Your task to perform on an android device: Go to Google maps Image 0: 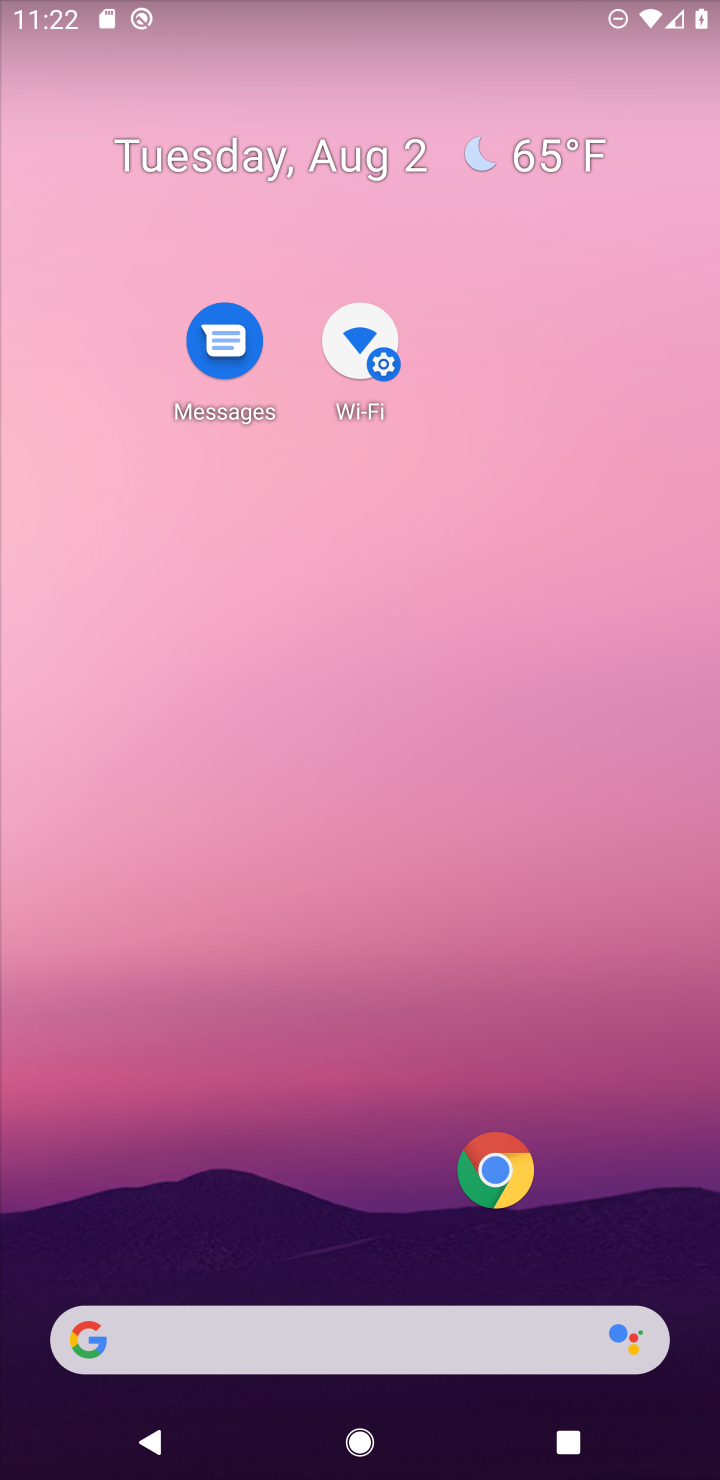
Step 0: click (486, 219)
Your task to perform on an android device: Go to Google maps Image 1: 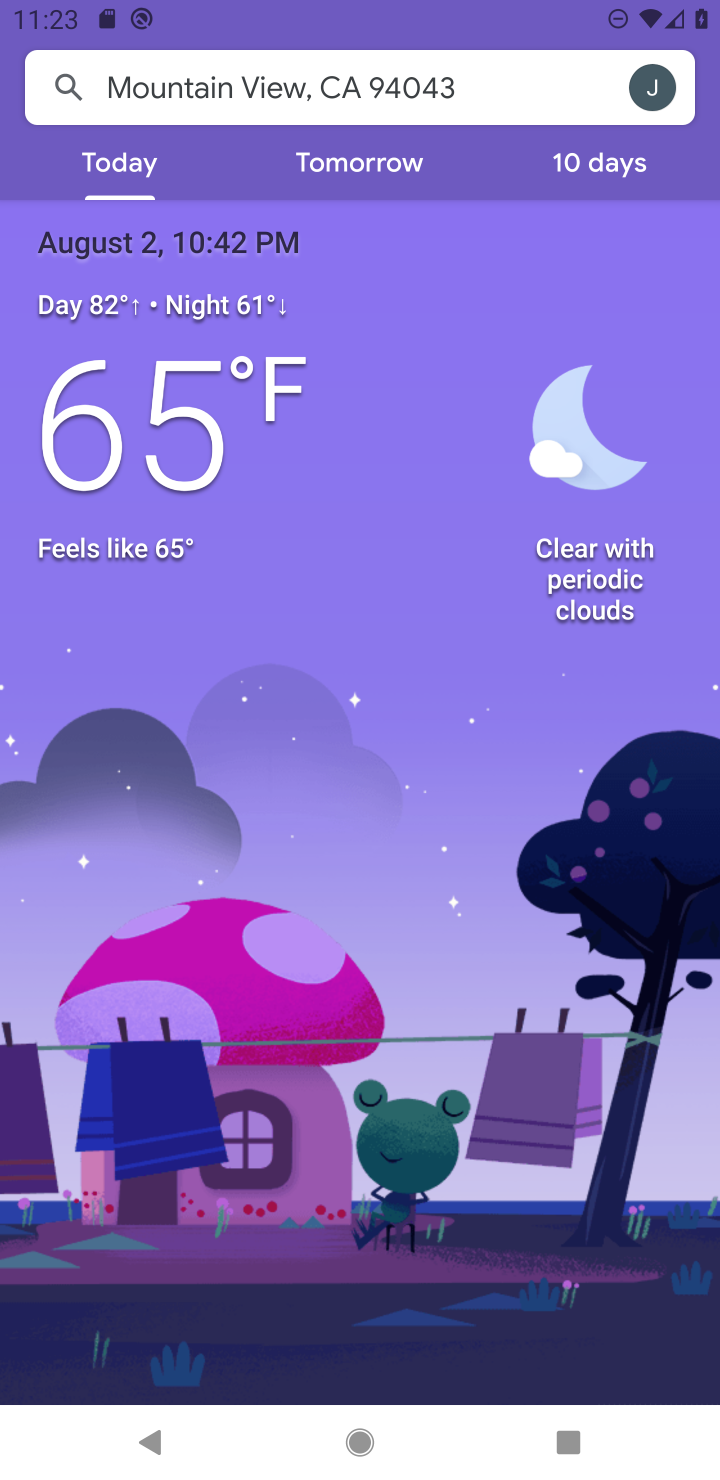
Step 1: press home button
Your task to perform on an android device: Go to Google maps Image 2: 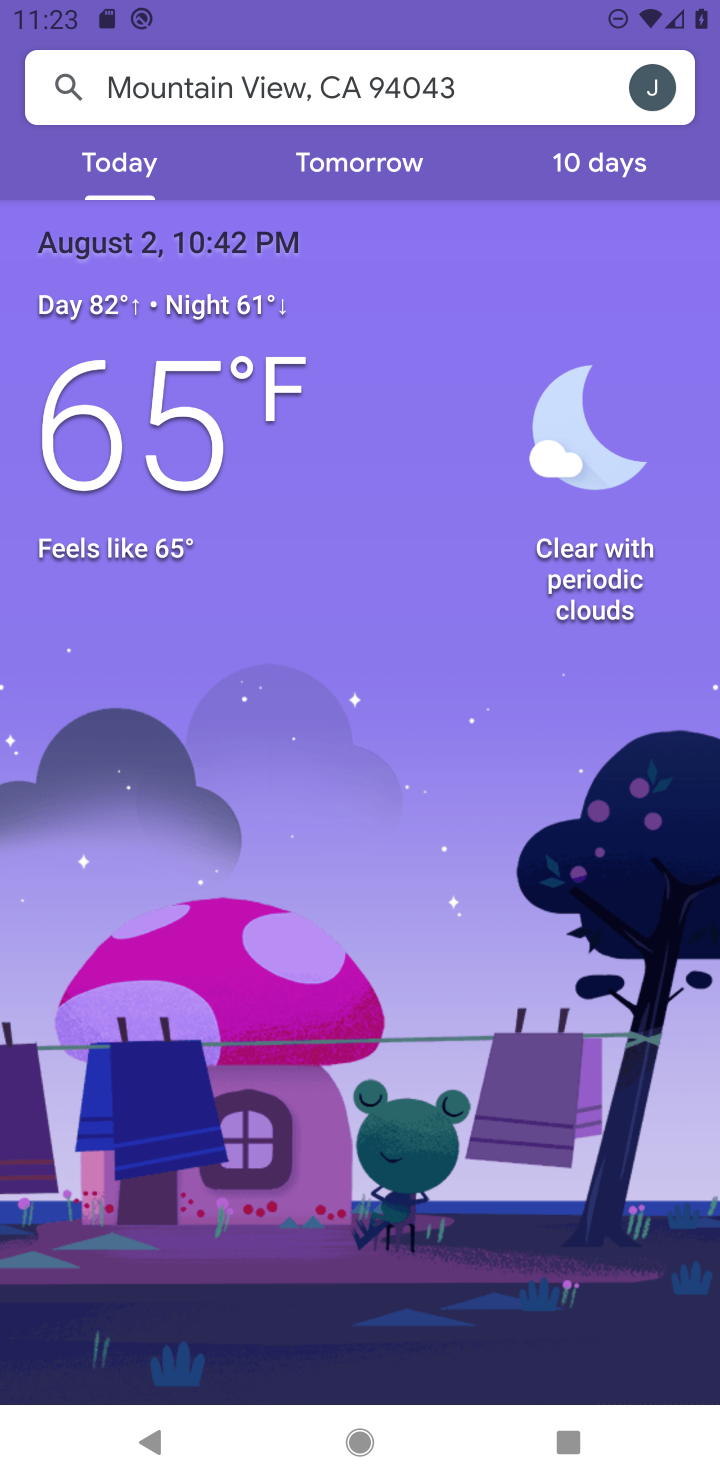
Step 2: click (479, 464)
Your task to perform on an android device: Go to Google maps Image 3: 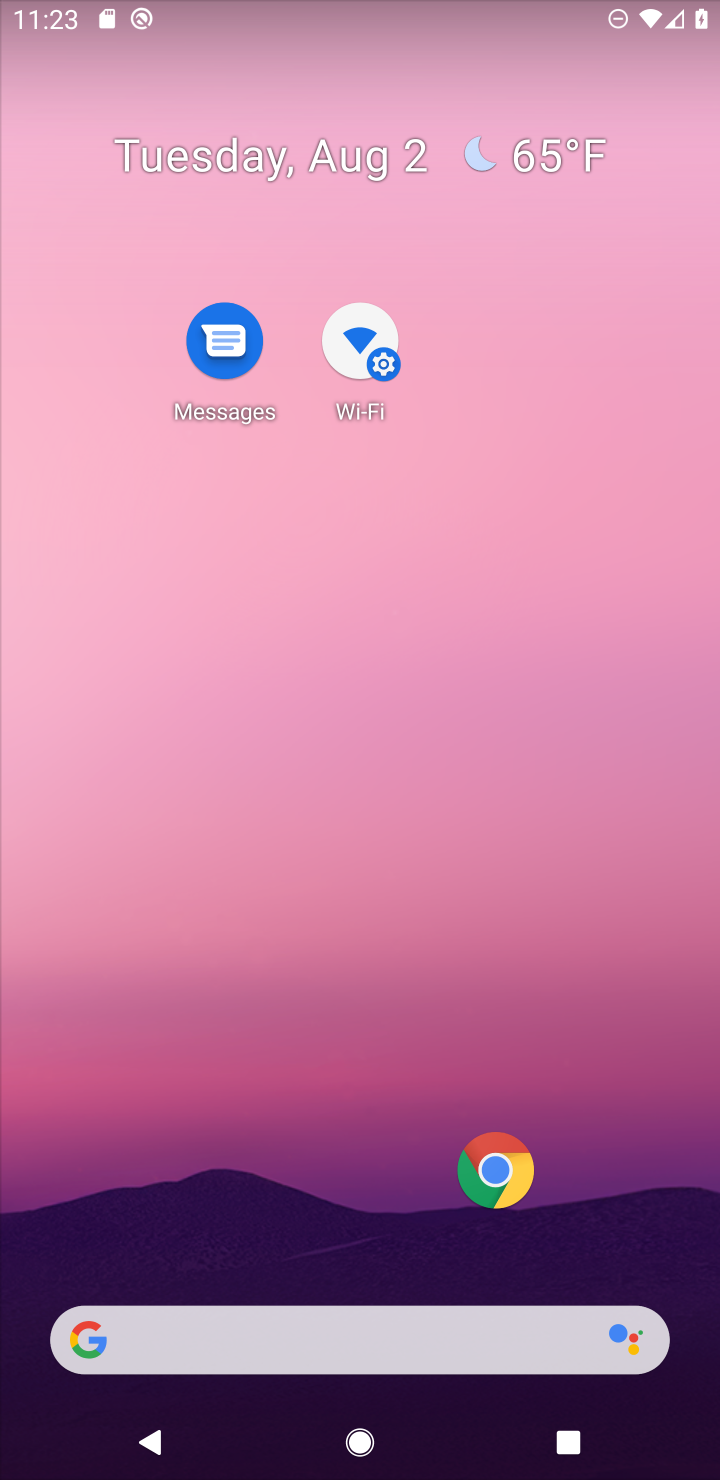
Step 3: drag from (336, 1202) to (202, 1)
Your task to perform on an android device: Go to Google maps Image 4: 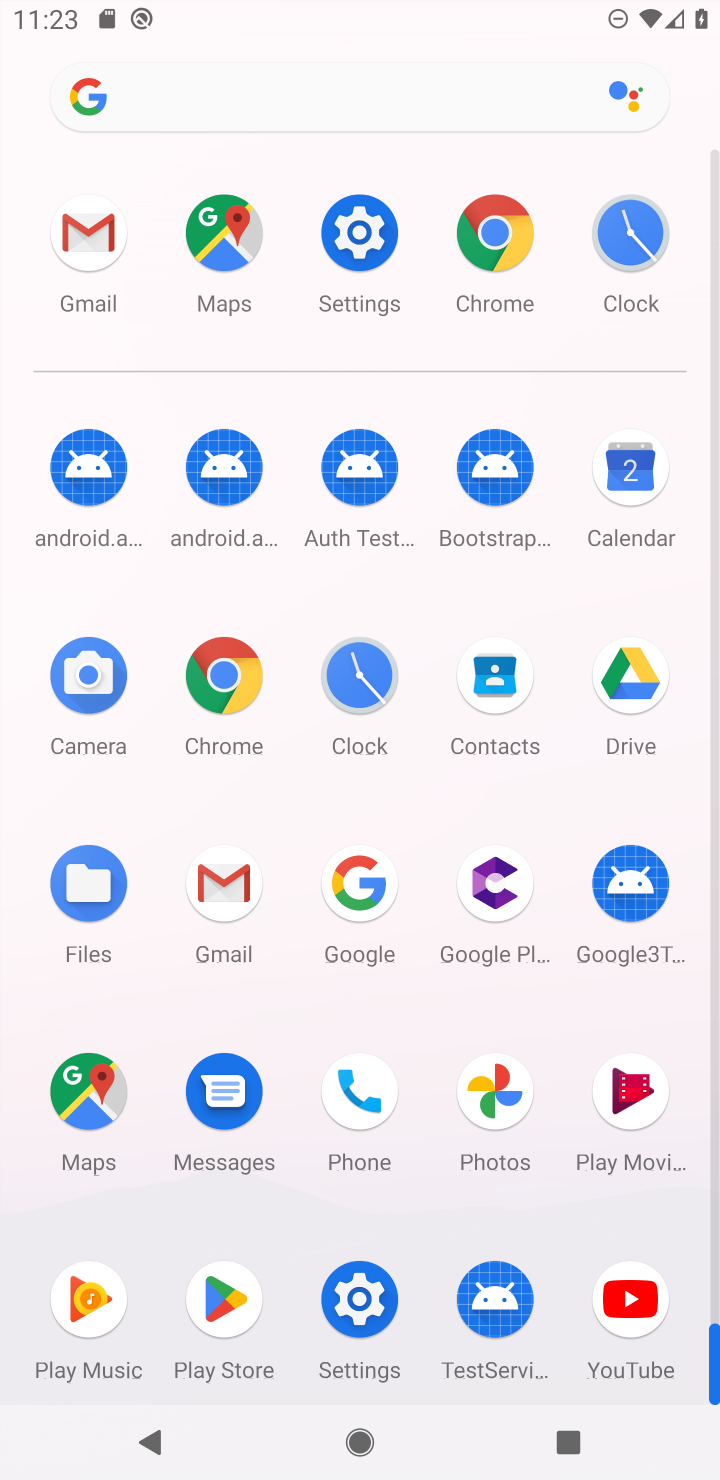
Step 4: click (68, 1102)
Your task to perform on an android device: Go to Google maps Image 5: 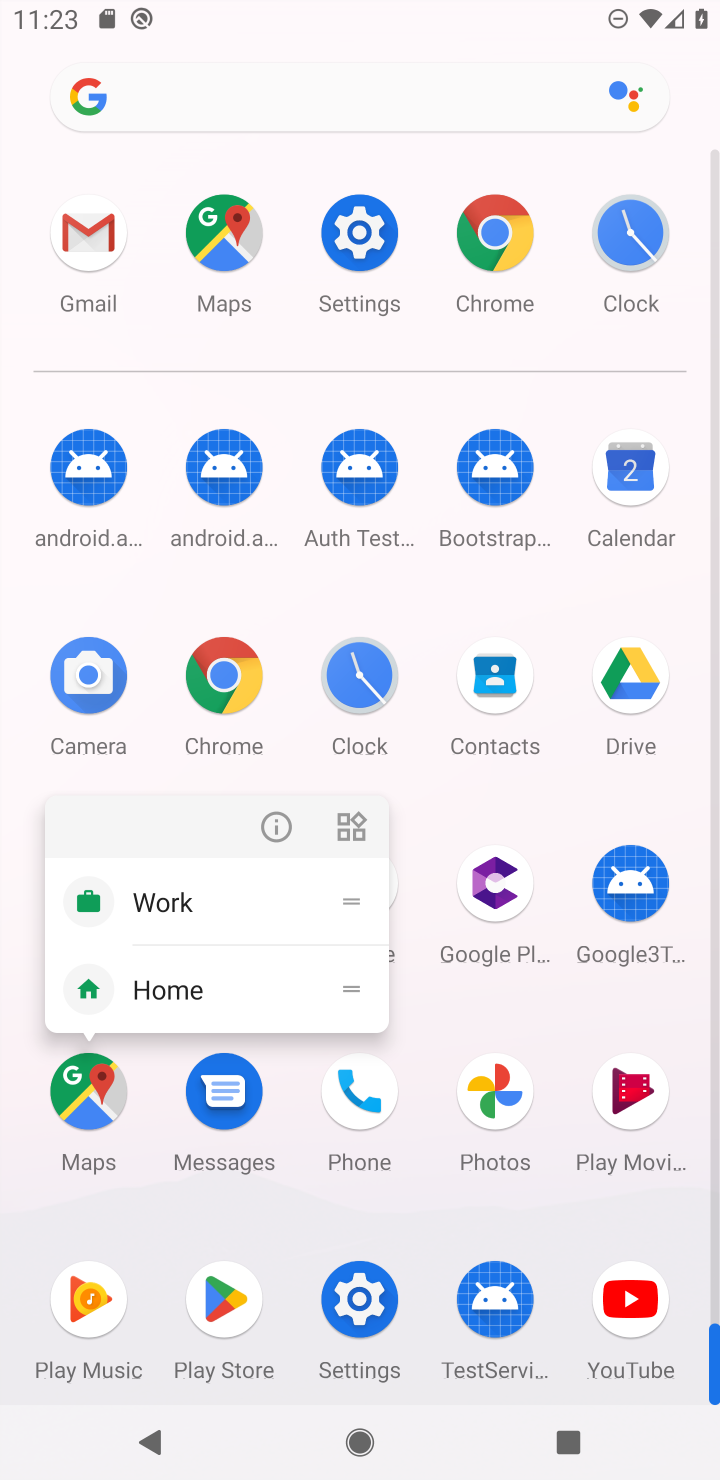
Step 5: click (266, 818)
Your task to perform on an android device: Go to Google maps Image 6: 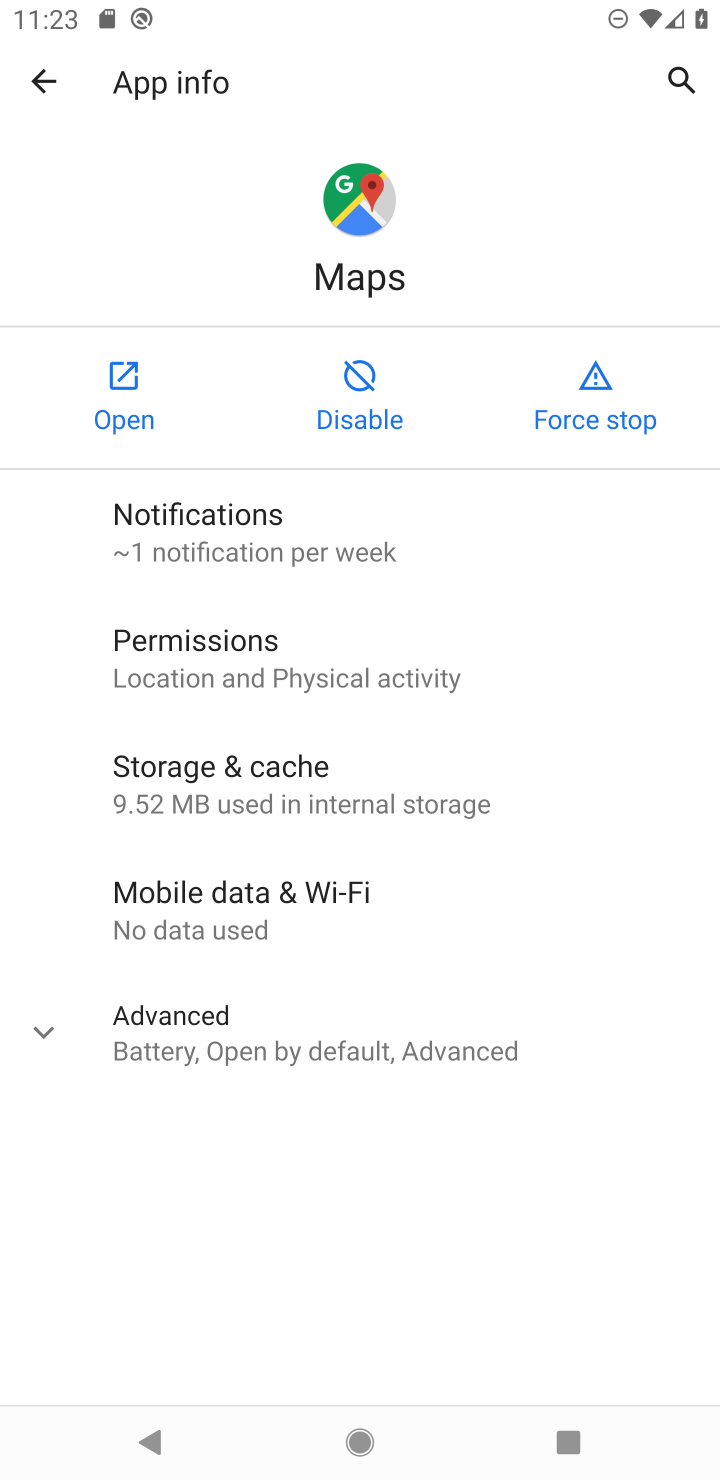
Step 6: click (129, 402)
Your task to perform on an android device: Go to Google maps Image 7: 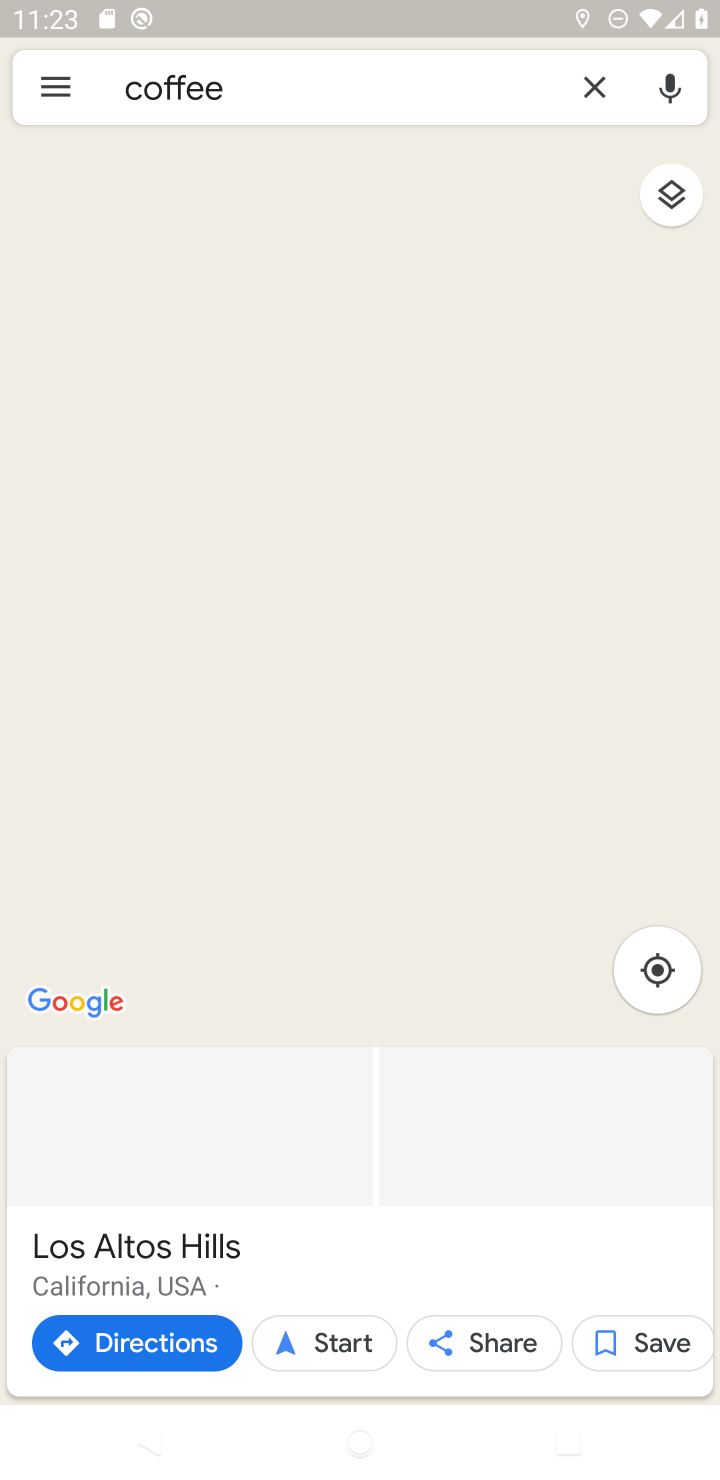
Step 7: task complete